Your task to perform on an android device: Show me popular games on the Play Store Image 0: 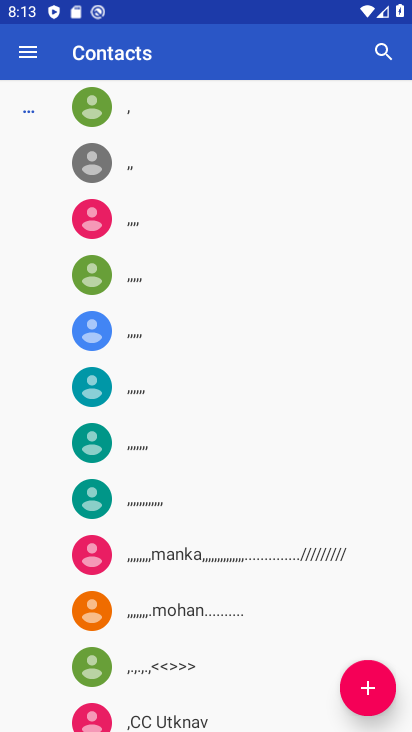
Step 0: press home button
Your task to perform on an android device: Show me popular games on the Play Store Image 1: 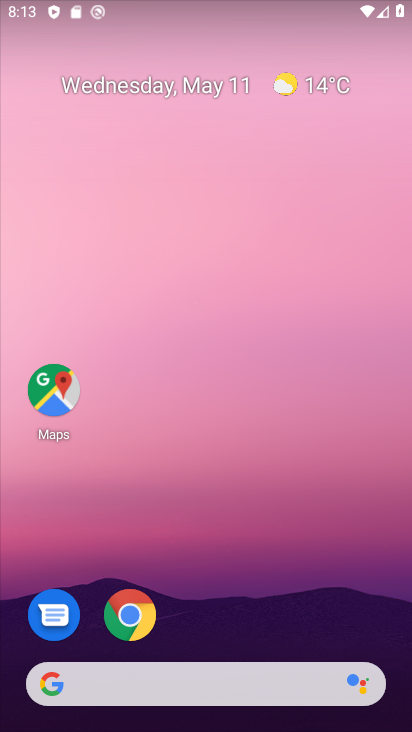
Step 1: drag from (320, 622) to (290, 303)
Your task to perform on an android device: Show me popular games on the Play Store Image 2: 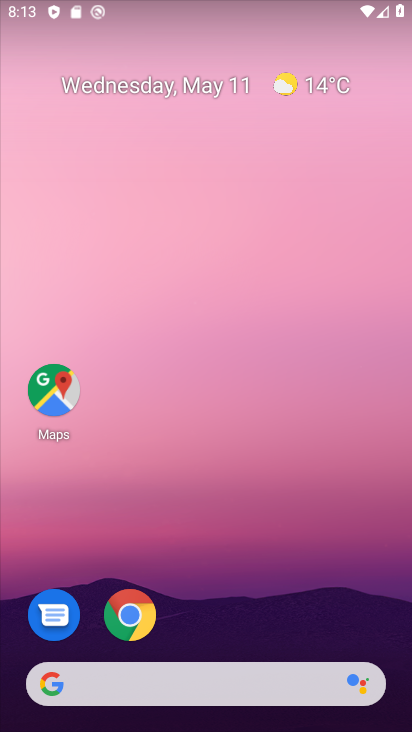
Step 2: drag from (308, 617) to (291, 190)
Your task to perform on an android device: Show me popular games on the Play Store Image 3: 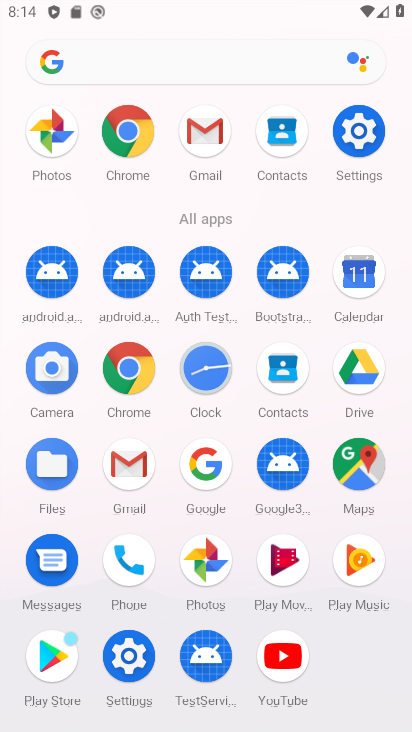
Step 3: click (48, 658)
Your task to perform on an android device: Show me popular games on the Play Store Image 4: 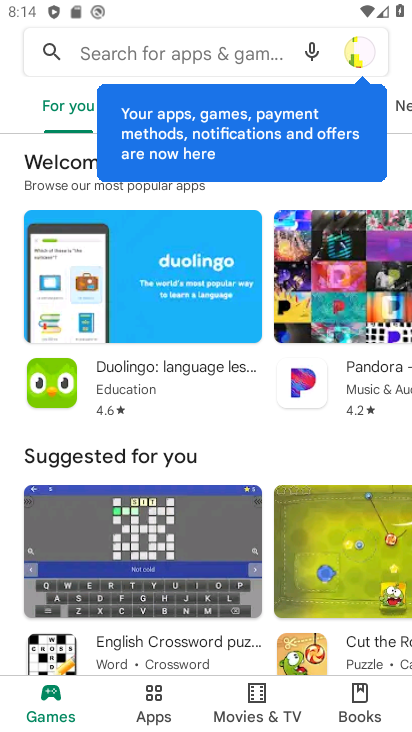
Step 4: click (74, 100)
Your task to perform on an android device: Show me popular games on the Play Store Image 5: 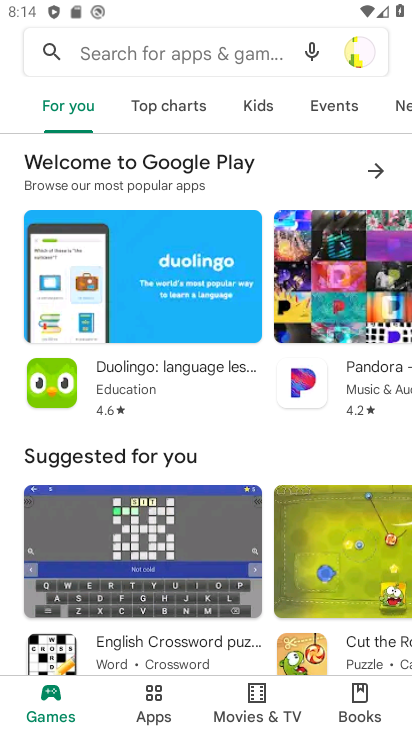
Step 5: click (163, 112)
Your task to perform on an android device: Show me popular games on the Play Store Image 6: 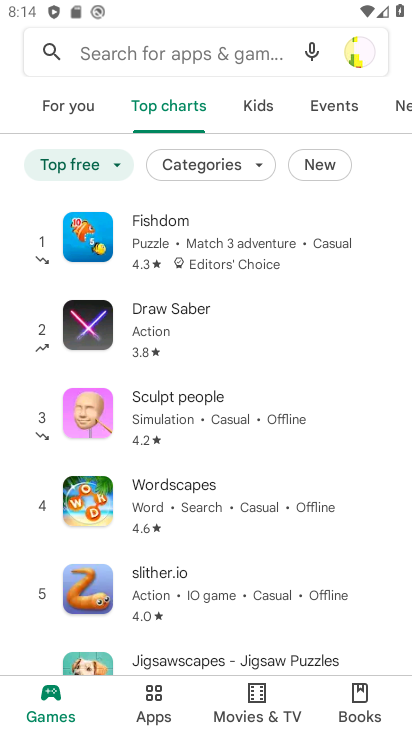
Step 6: task complete